Your task to perform on an android device: Open Youtube and go to the subscriptions tab Image 0: 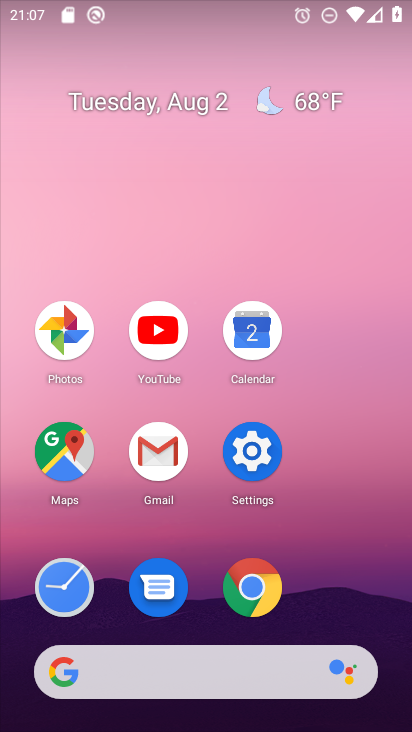
Step 0: click (155, 323)
Your task to perform on an android device: Open Youtube and go to the subscriptions tab Image 1: 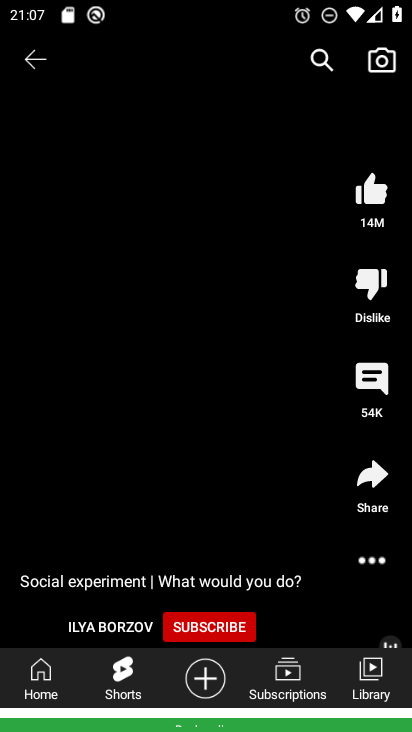
Step 1: click (279, 678)
Your task to perform on an android device: Open Youtube and go to the subscriptions tab Image 2: 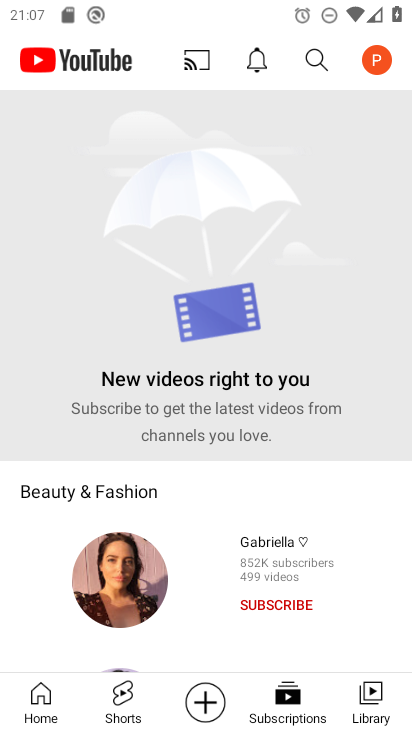
Step 2: task complete